Your task to perform on an android device: check google app version Image 0: 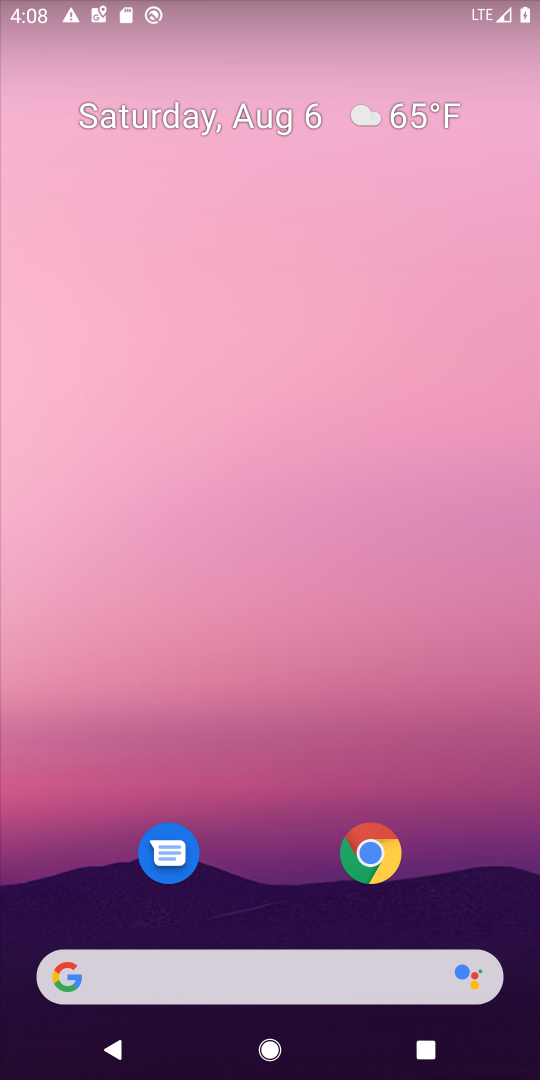
Step 0: drag from (280, 935) to (294, 15)
Your task to perform on an android device: check google app version Image 1: 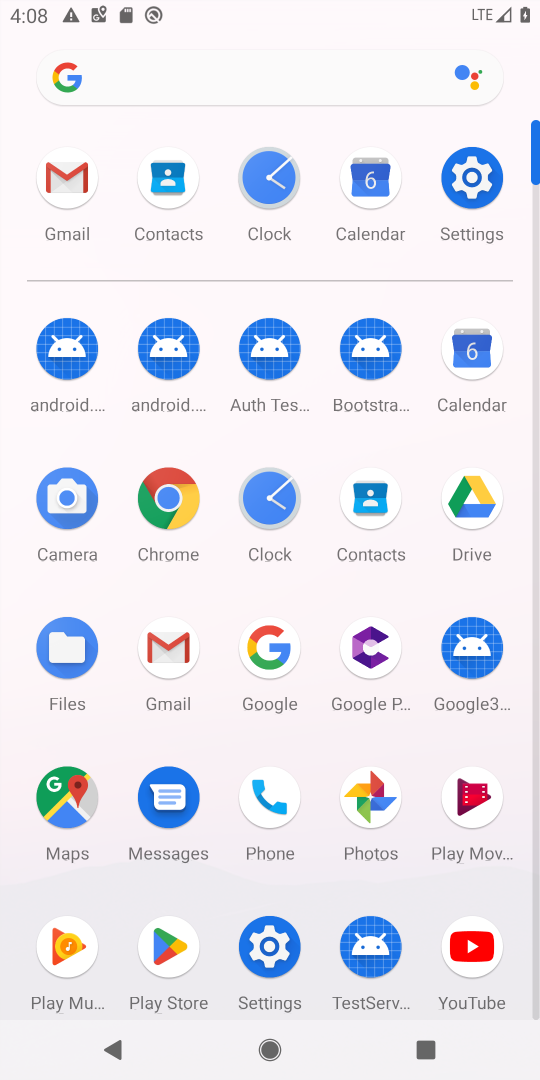
Step 1: click (275, 659)
Your task to perform on an android device: check google app version Image 2: 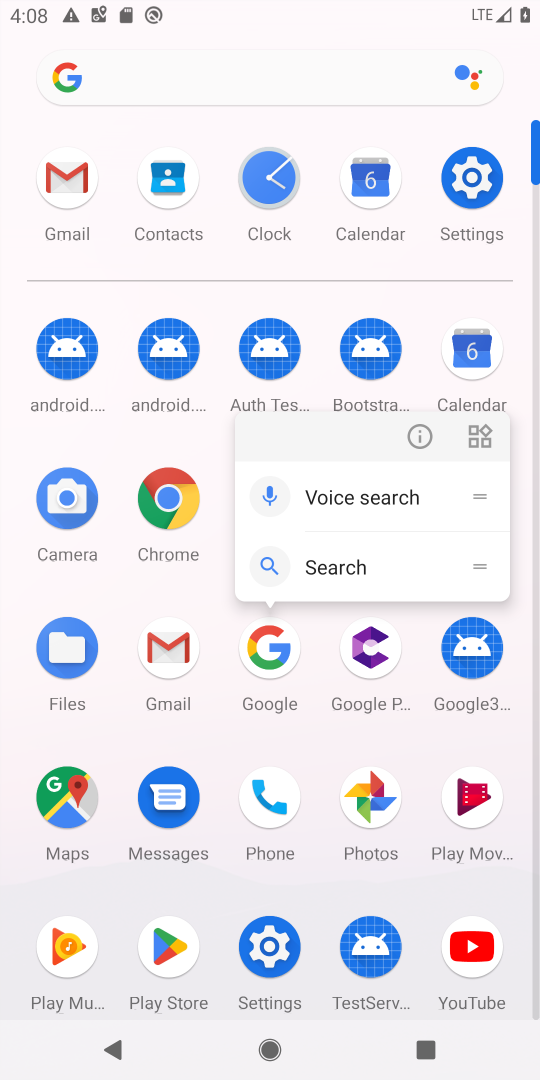
Step 2: click (417, 442)
Your task to perform on an android device: check google app version Image 3: 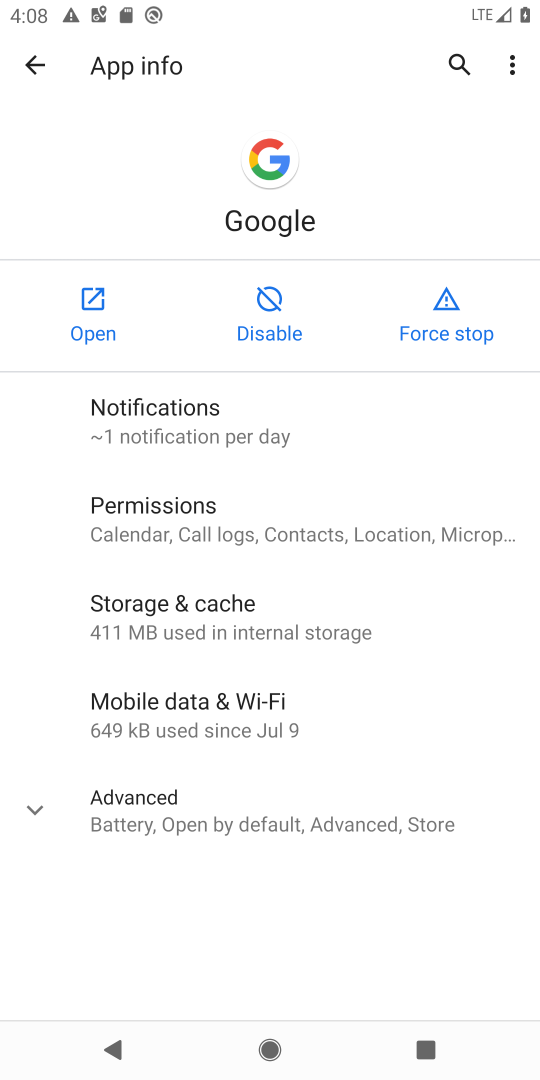
Step 3: click (133, 832)
Your task to perform on an android device: check google app version Image 4: 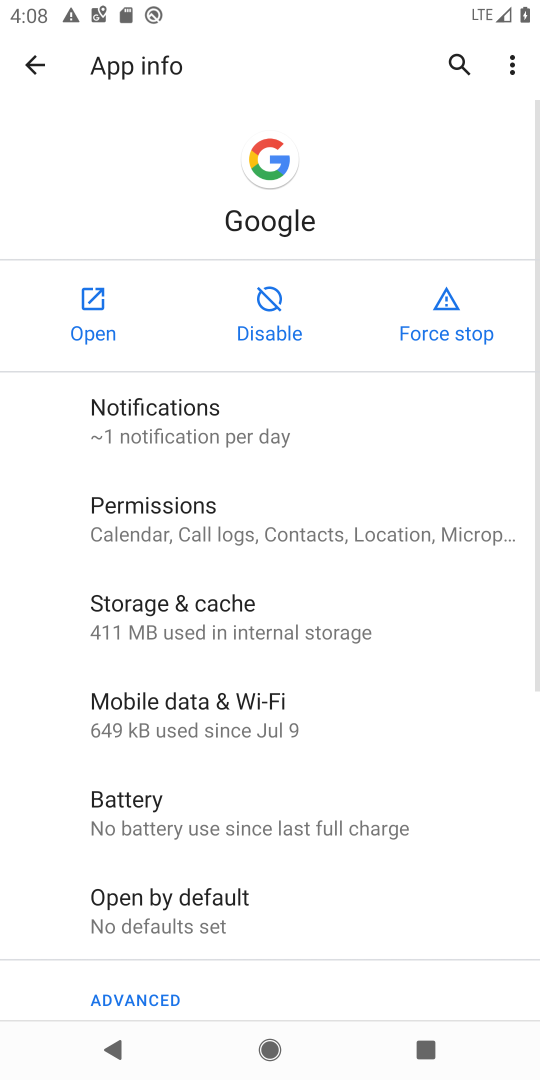
Step 4: task complete